Your task to perform on an android device: turn notification dots off Image 0: 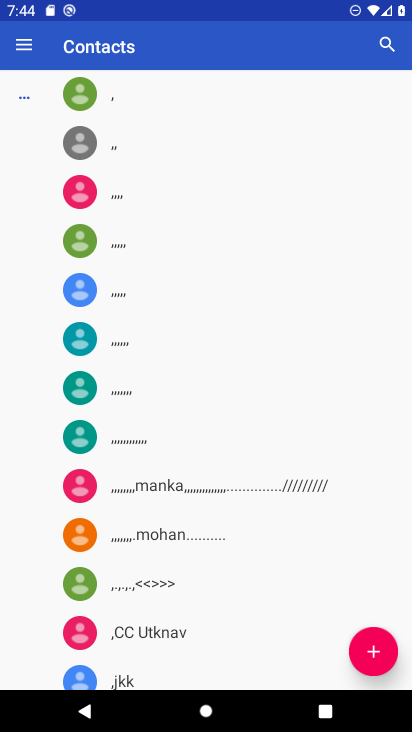
Step 0: press home button
Your task to perform on an android device: turn notification dots off Image 1: 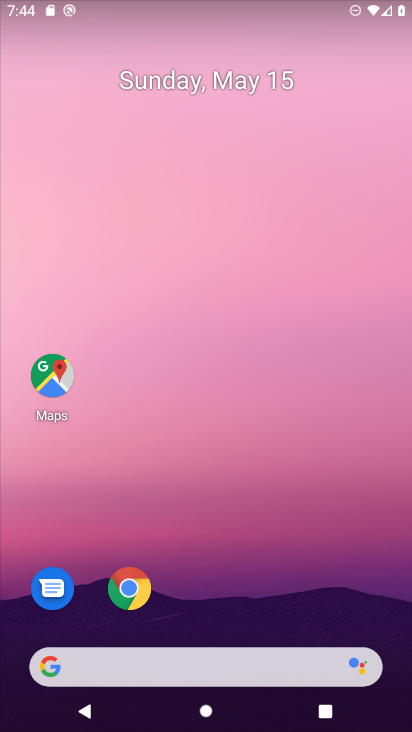
Step 1: drag from (215, 635) to (248, 123)
Your task to perform on an android device: turn notification dots off Image 2: 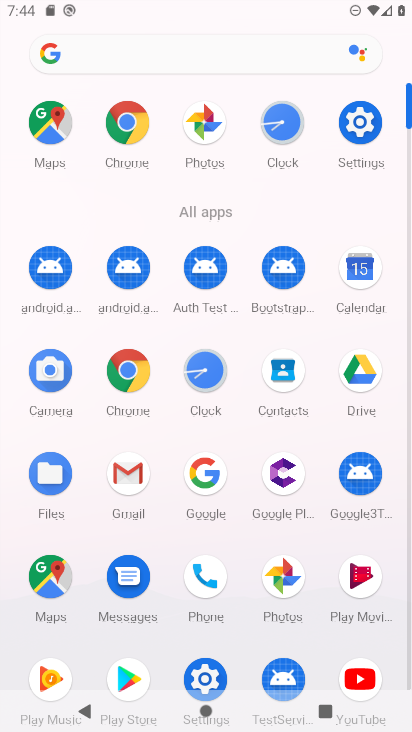
Step 2: click (356, 118)
Your task to perform on an android device: turn notification dots off Image 3: 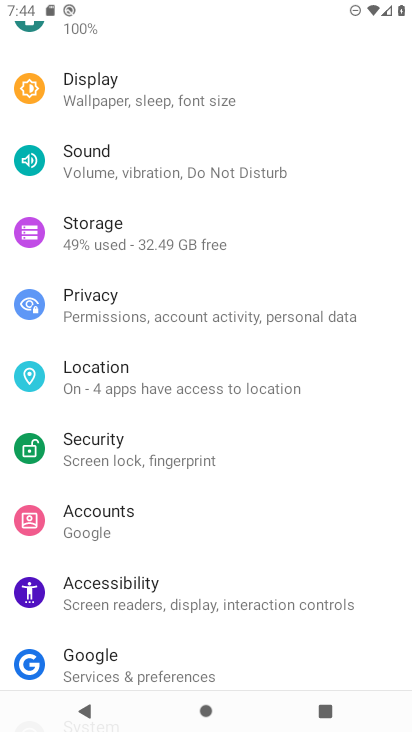
Step 3: drag from (140, 142) to (171, 681)
Your task to perform on an android device: turn notification dots off Image 4: 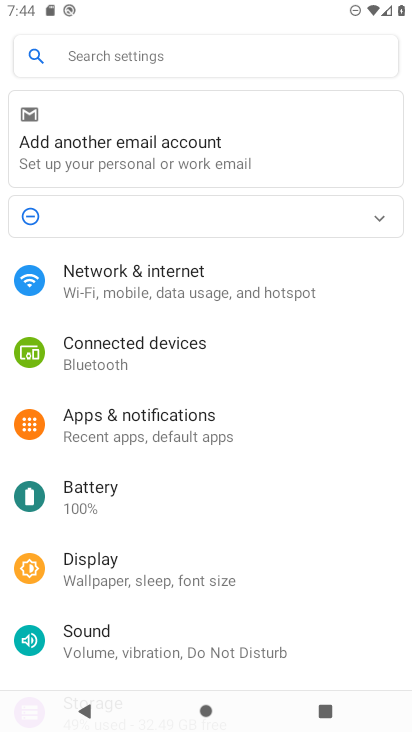
Step 4: click (168, 425)
Your task to perform on an android device: turn notification dots off Image 5: 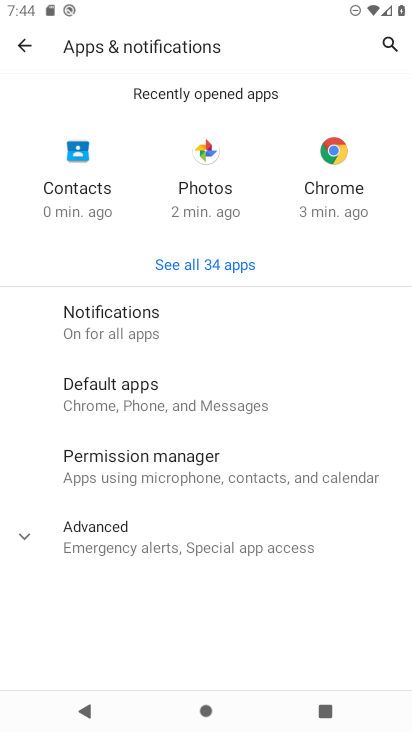
Step 5: click (42, 529)
Your task to perform on an android device: turn notification dots off Image 6: 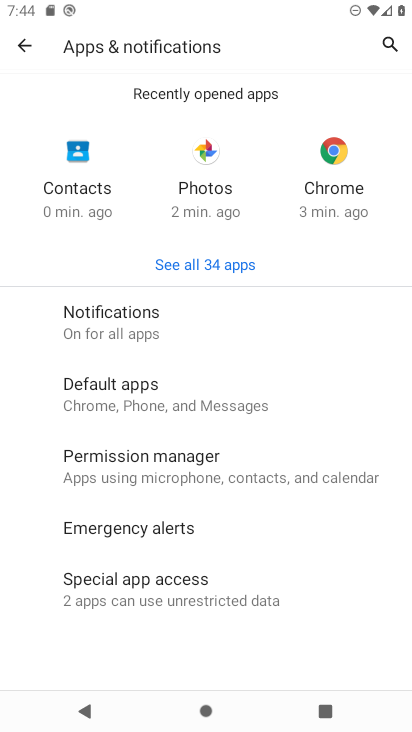
Step 6: click (182, 316)
Your task to perform on an android device: turn notification dots off Image 7: 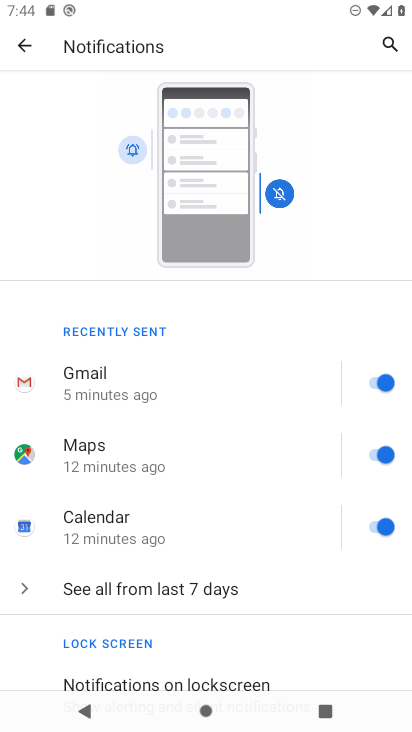
Step 7: drag from (228, 646) to (238, 177)
Your task to perform on an android device: turn notification dots off Image 8: 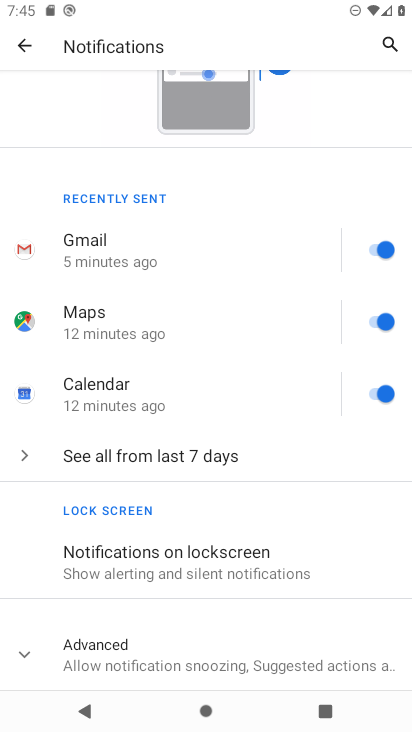
Step 8: click (38, 654)
Your task to perform on an android device: turn notification dots off Image 9: 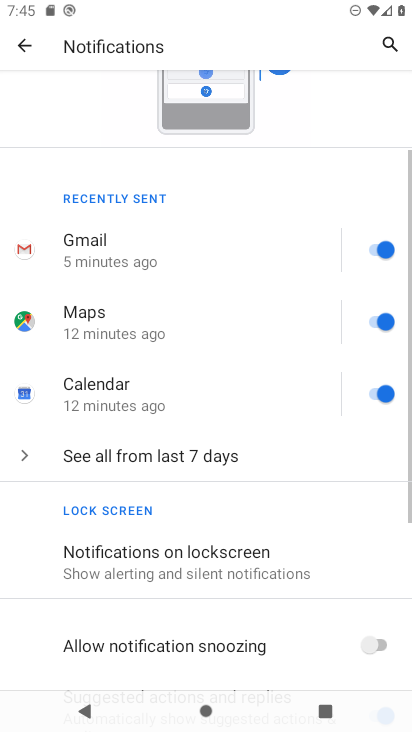
Step 9: drag from (177, 632) to (196, 123)
Your task to perform on an android device: turn notification dots off Image 10: 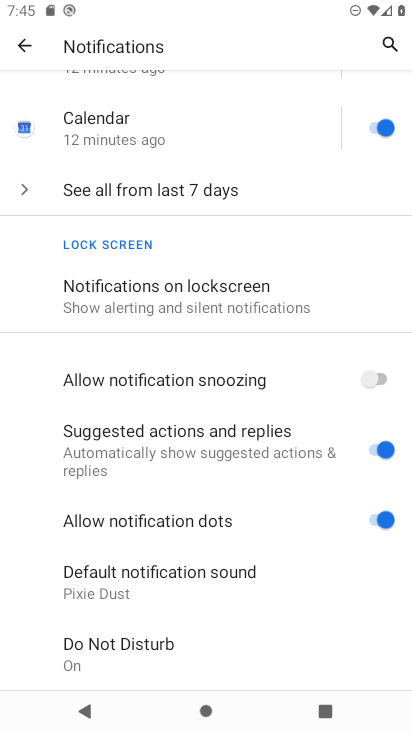
Step 10: click (375, 506)
Your task to perform on an android device: turn notification dots off Image 11: 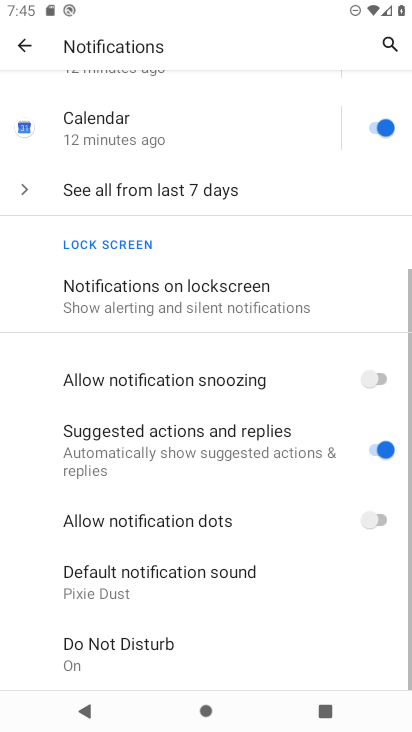
Step 11: task complete